Your task to perform on an android device: change alarm snooze length Image 0: 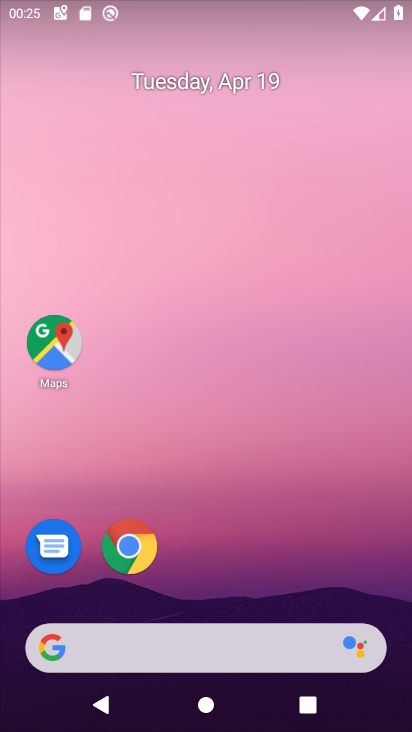
Step 0: drag from (212, 594) to (223, 19)
Your task to perform on an android device: change alarm snooze length Image 1: 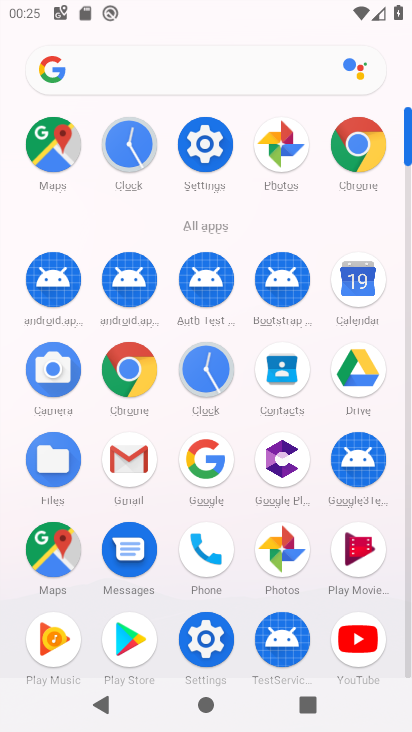
Step 1: click (203, 359)
Your task to perform on an android device: change alarm snooze length Image 2: 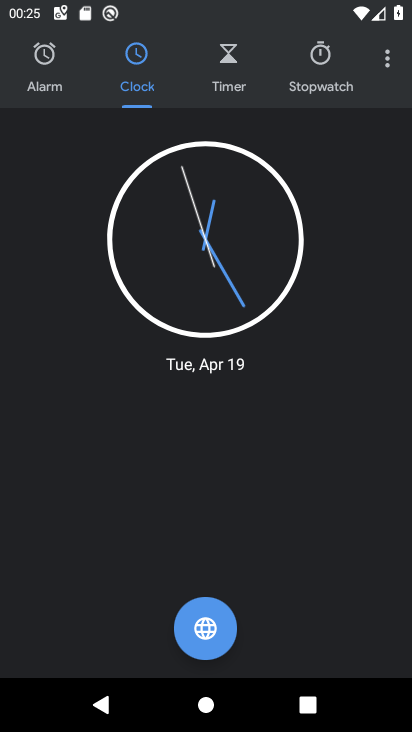
Step 2: click (388, 55)
Your task to perform on an android device: change alarm snooze length Image 3: 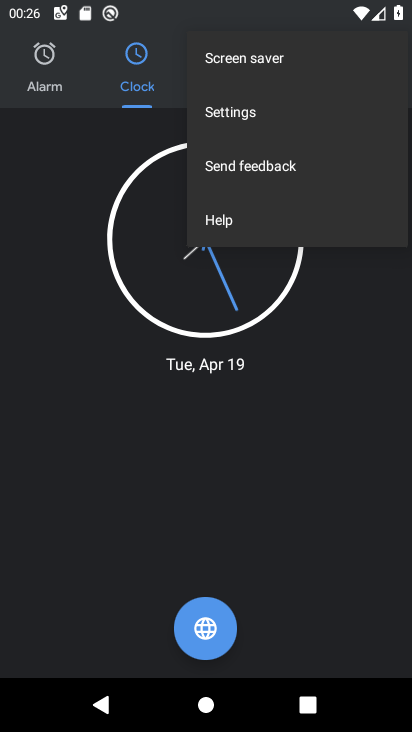
Step 3: click (264, 112)
Your task to perform on an android device: change alarm snooze length Image 4: 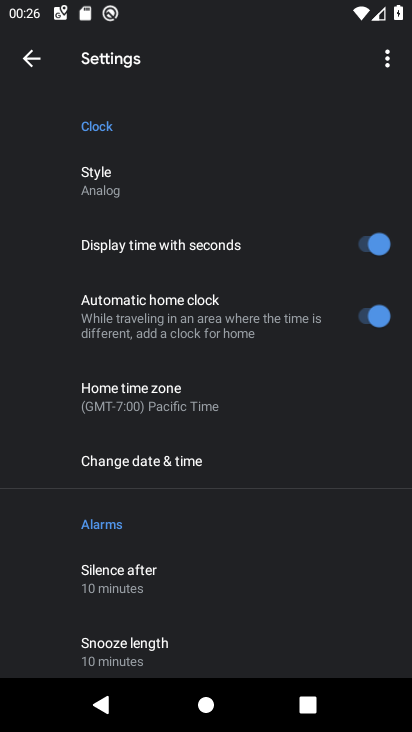
Step 4: click (191, 652)
Your task to perform on an android device: change alarm snooze length Image 5: 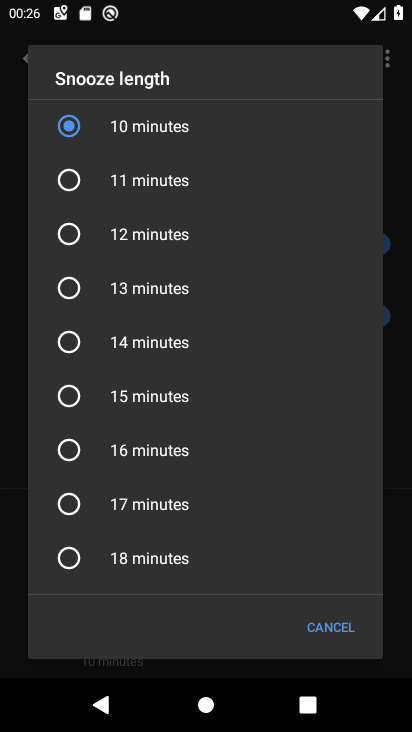
Step 5: drag from (86, 226) to (82, 613)
Your task to perform on an android device: change alarm snooze length Image 6: 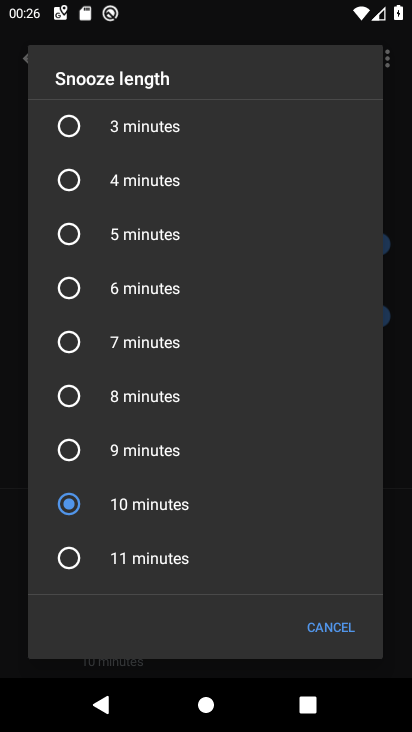
Step 6: click (68, 117)
Your task to perform on an android device: change alarm snooze length Image 7: 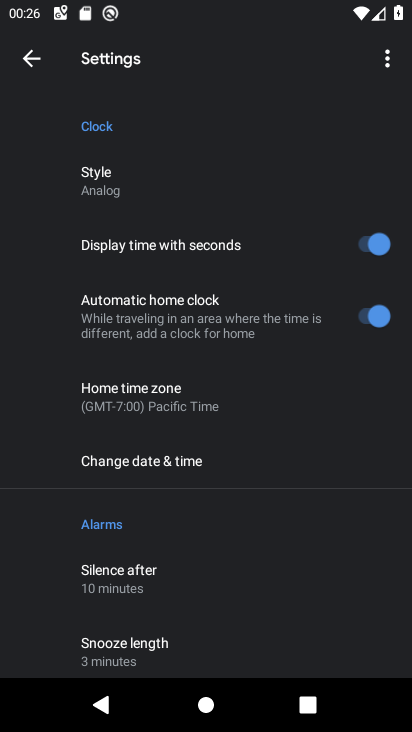
Step 7: task complete